Your task to perform on an android device: Clear the shopping cart on newegg.com. Search for acer nitro on newegg.com, select the first entry, add it to the cart, then select checkout. Image 0: 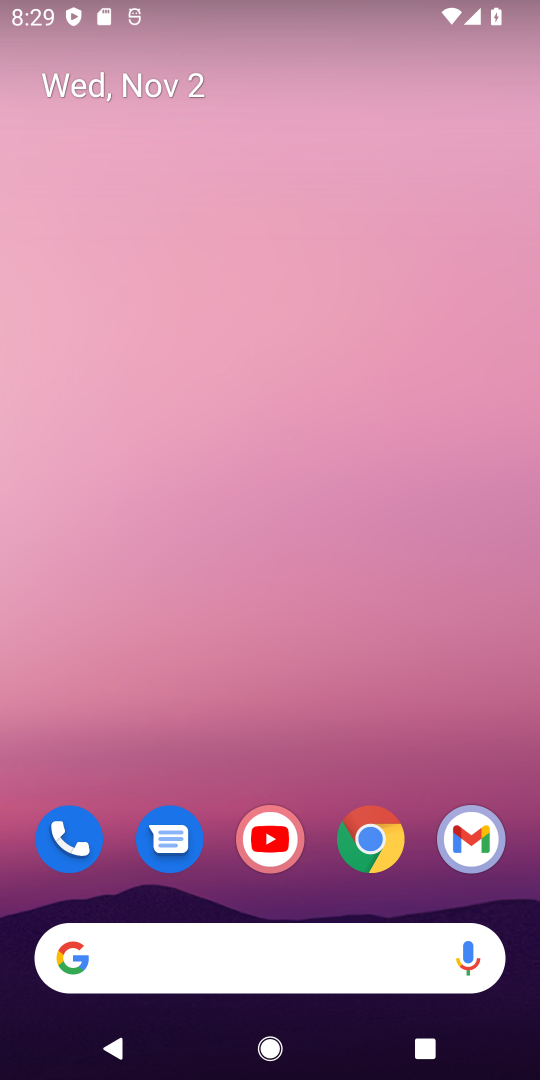
Step 0: click (372, 839)
Your task to perform on an android device: Clear the shopping cart on newegg.com. Search for acer nitro on newegg.com, select the first entry, add it to the cart, then select checkout. Image 1: 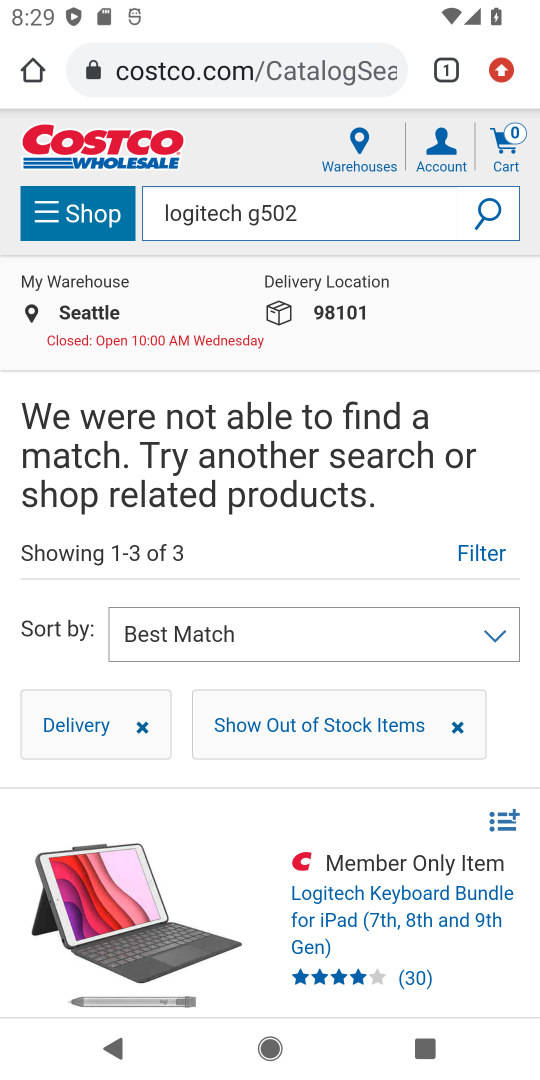
Step 1: click (301, 78)
Your task to perform on an android device: Clear the shopping cart on newegg.com. Search for acer nitro on newegg.com, select the first entry, add it to the cart, then select checkout. Image 2: 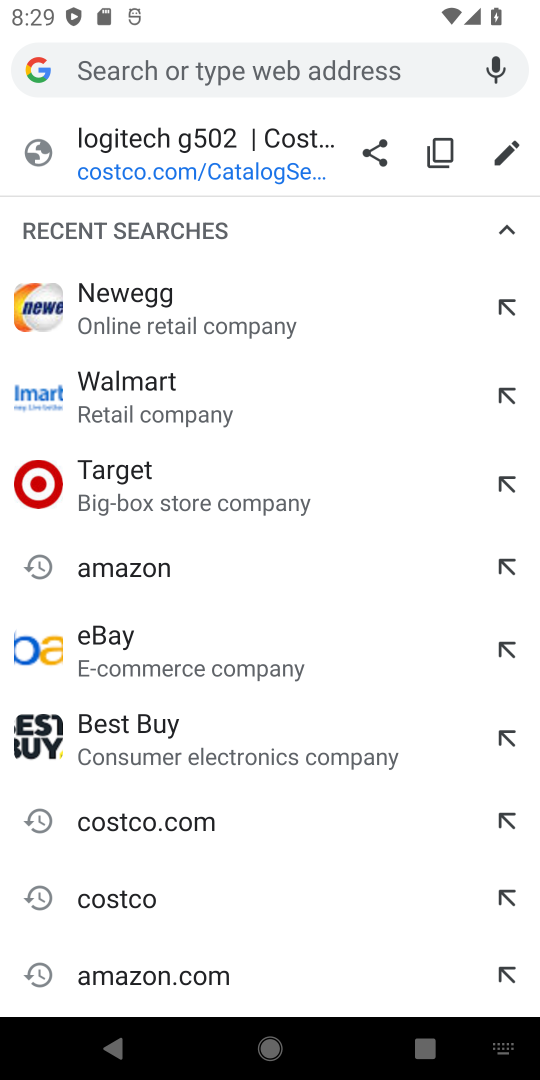
Step 2: type "newegg.com"
Your task to perform on an android device: Clear the shopping cart on newegg.com. Search for acer nitro on newegg.com, select the first entry, add it to the cart, then select checkout. Image 3: 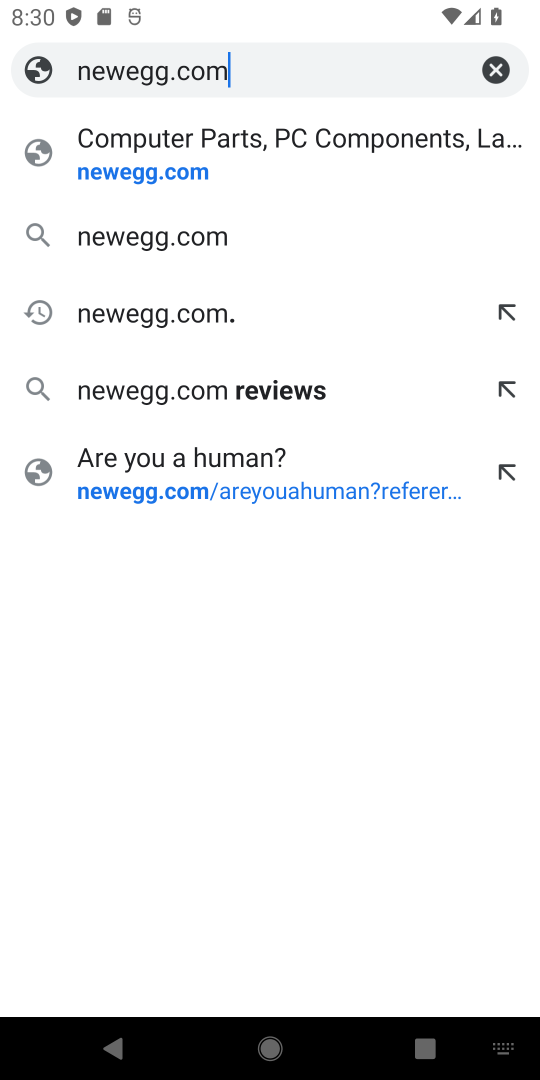
Step 3: click (186, 232)
Your task to perform on an android device: Clear the shopping cart on newegg.com. Search for acer nitro on newegg.com, select the first entry, add it to the cart, then select checkout. Image 4: 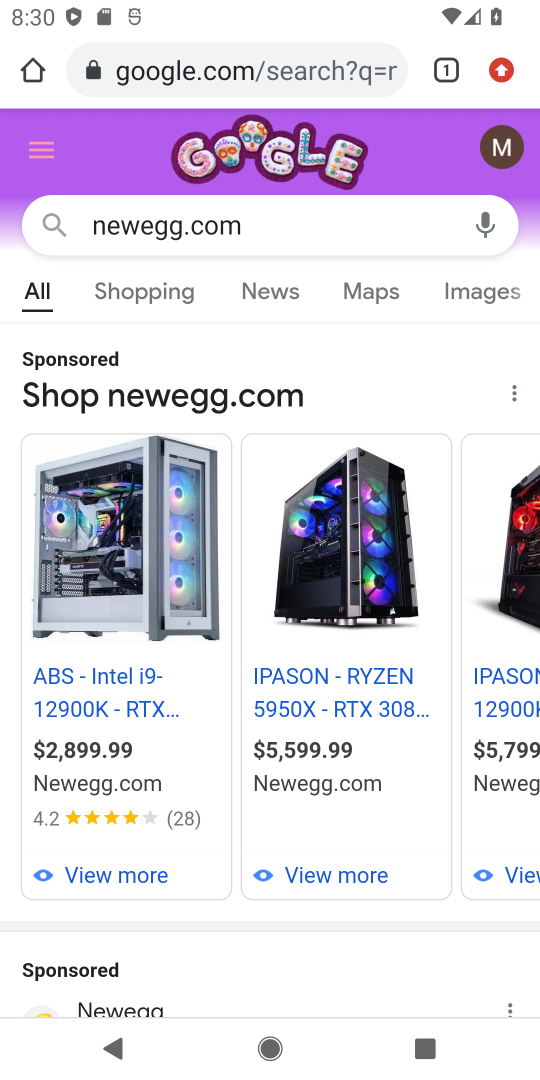
Step 4: drag from (302, 973) to (311, 468)
Your task to perform on an android device: Clear the shopping cart on newegg.com. Search for acer nitro on newegg.com, select the first entry, add it to the cart, then select checkout. Image 5: 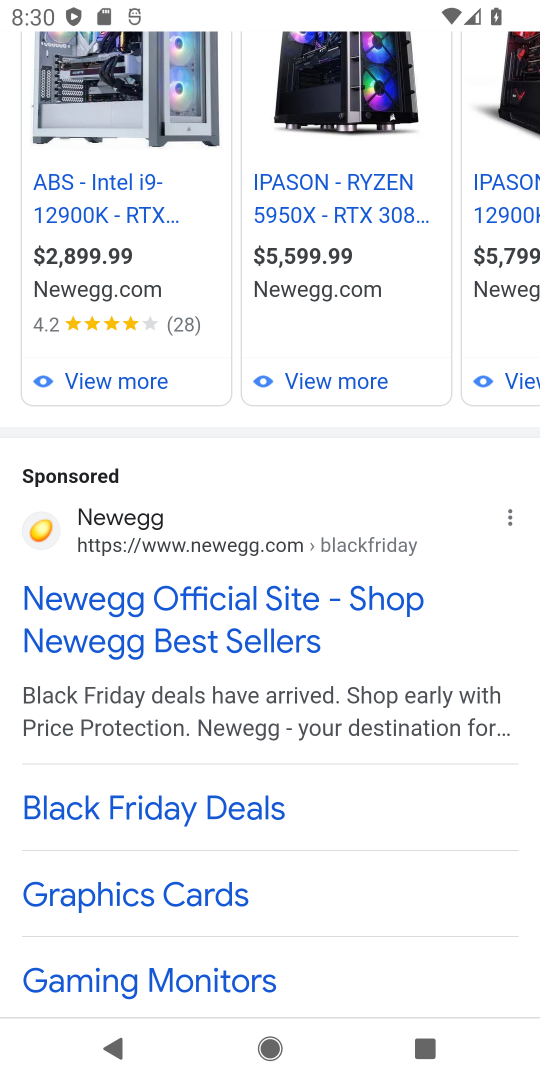
Step 5: drag from (352, 838) to (345, 421)
Your task to perform on an android device: Clear the shopping cart on newegg.com. Search for acer nitro on newegg.com, select the first entry, add it to the cart, then select checkout. Image 6: 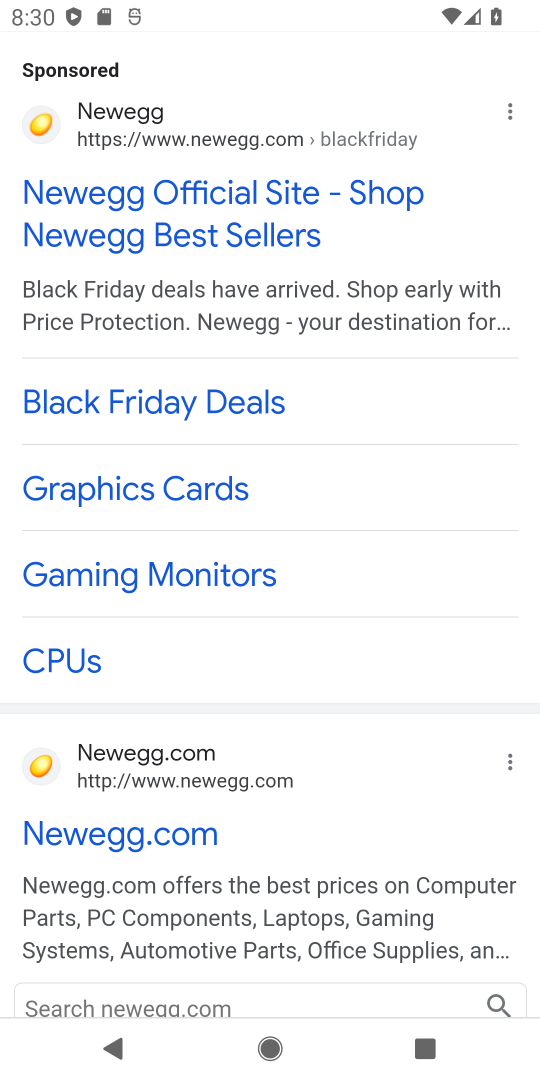
Step 6: click (232, 813)
Your task to perform on an android device: Clear the shopping cart on newegg.com. Search for acer nitro on newegg.com, select the first entry, add it to the cart, then select checkout. Image 7: 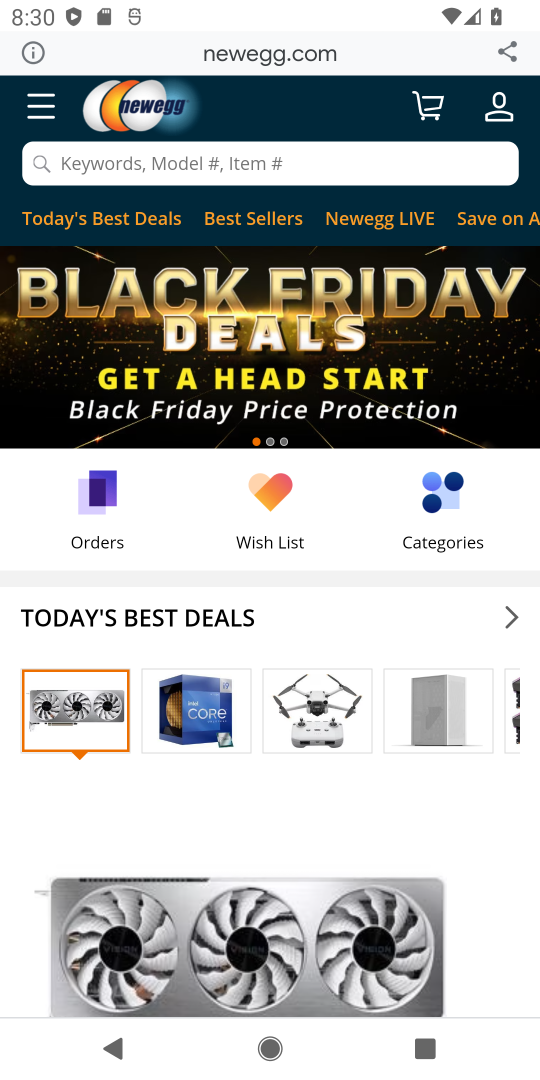
Step 7: click (258, 157)
Your task to perform on an android device: Clear the shopping cart on newegg.com. Search for acer nitro on newegg.com, select the first entry, add it to the cart, then select checkout. Image 8: 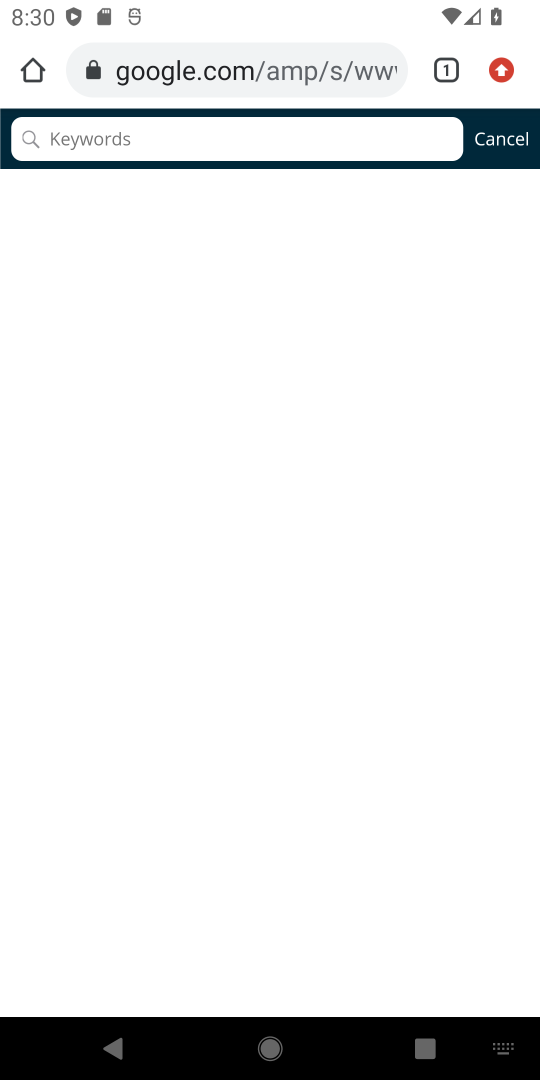
Step 8: type "acer nitro"
Your task to perform on an android device: Clear the shopping cart on newegg.com. Search for acer nitro on newegg.com, select the first entry, add it to the cart, then select checkout. Image 9: 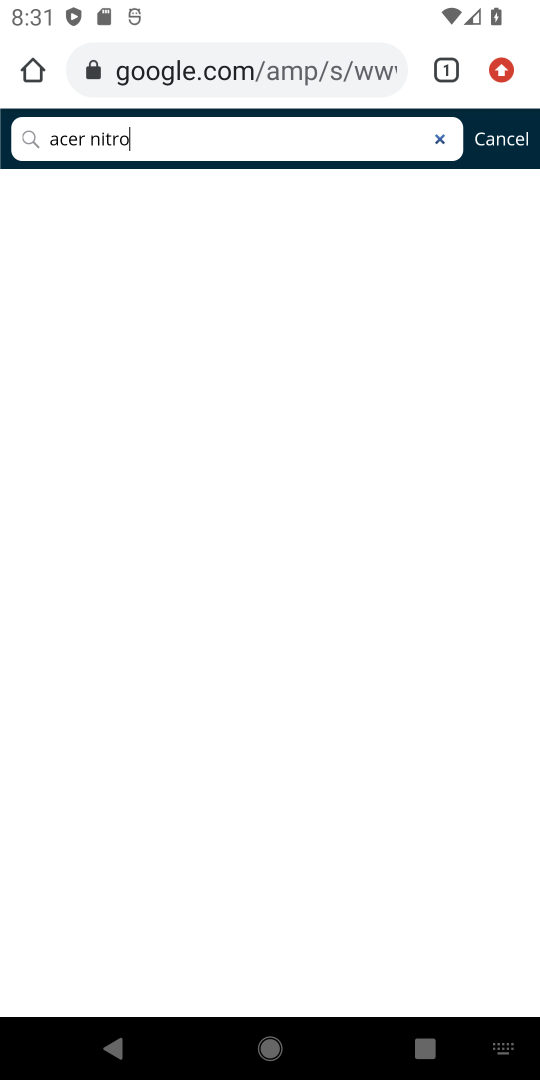
Step 9: task complete